Your task to perform on an android device: Open the phone app and click the voicemail tab. Image 0: 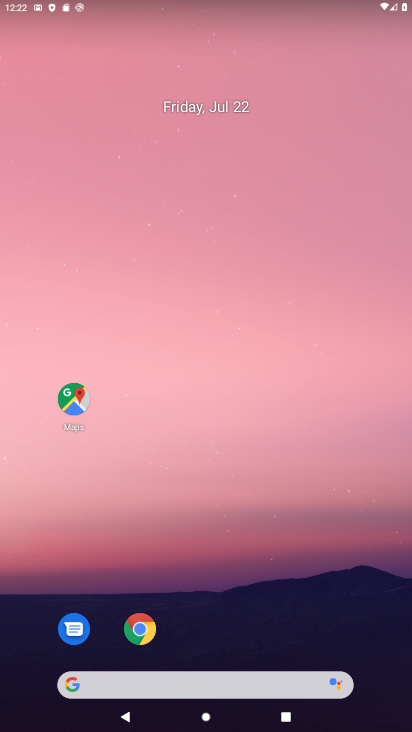
Step 0: drag from (319, 663) to (307, 107)
Your task to perform on an android device: Open the phone app and click the voicemail tab. Image 1: 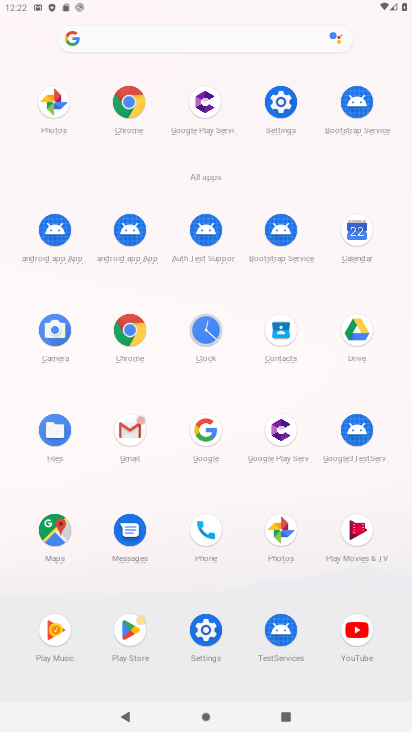
Step 1: click (197, 529)
Your task to perform on an android device: Open the phone app and click the voicemail tab. Image 2: 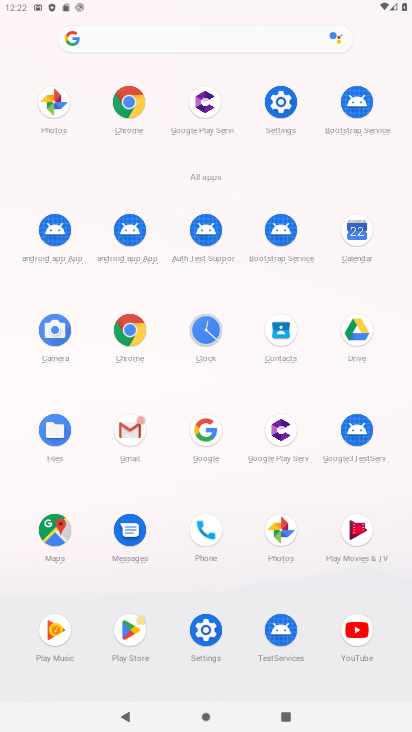
Step 2: click (200, 528)
Your task to perform on an android device: Open the phone app and click the voicemail tab. Image 3: 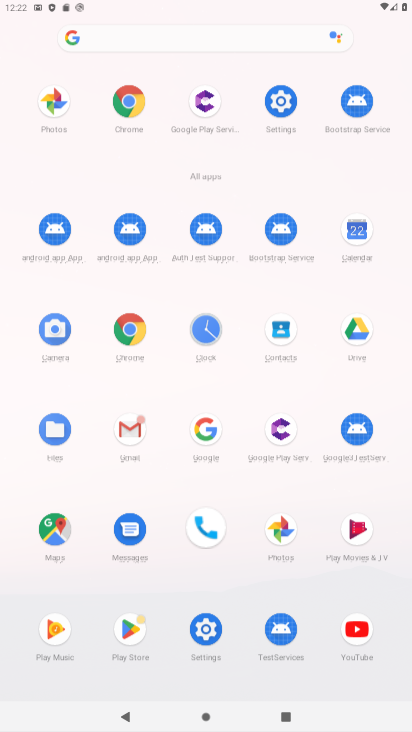
Step 3: click (206, 528)
Your task to perform on an android device: Open the phone app and click the voicemail tab. Image 4: 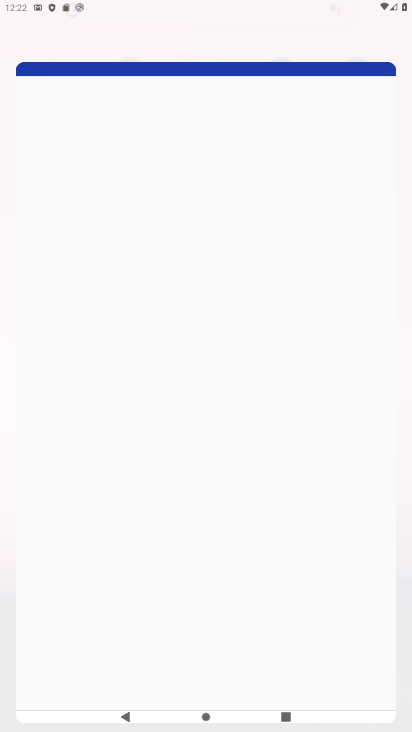
Step 4: click (211, 517)
Your task to perform on an android device: Open the phone app and click the voicemail tab. Image 5: 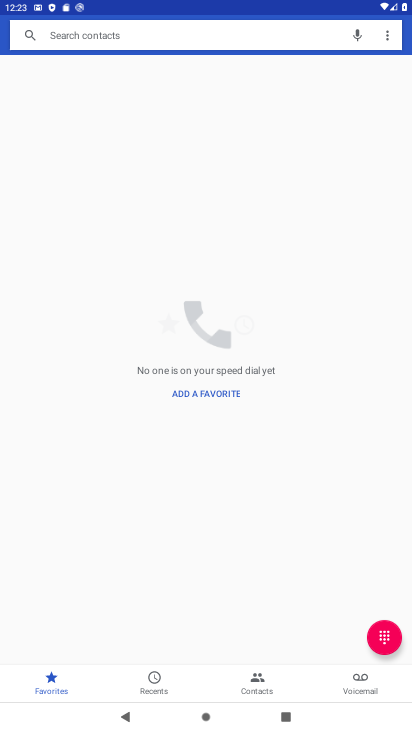
Step 5: click (353, 676)
Your task to perform on an android device: Open the phone app and click the voicemail tab. Image 6: 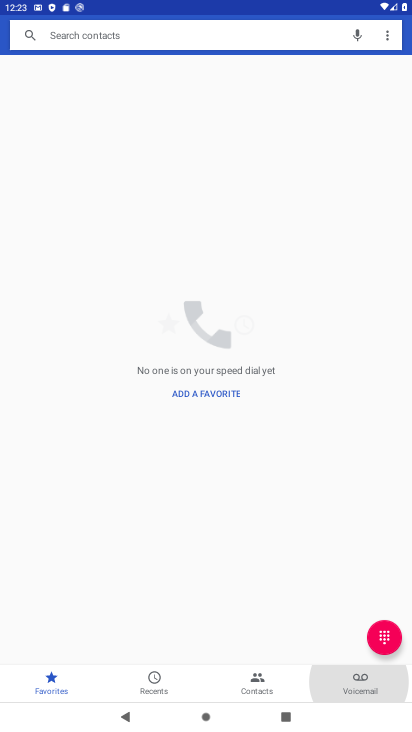
Step 6: click (354, 676)
Your task to perform on an android device: Open the phone app and click the voicemail tab. Image 7: 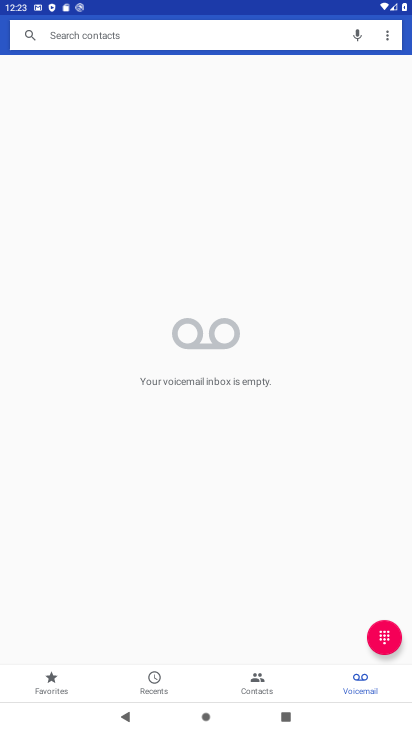
Step 7: task complete